Your task to perform on an android device: toggle sleep mode Image 0: 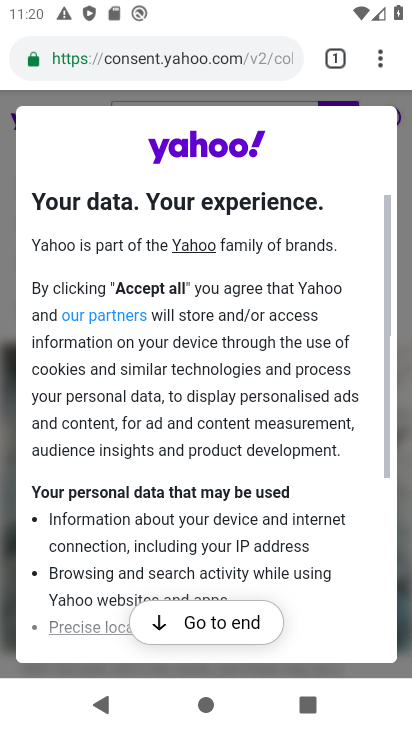
Step 0: press home button
Your task to perform on an android device: toggle sleep mode Image 1: 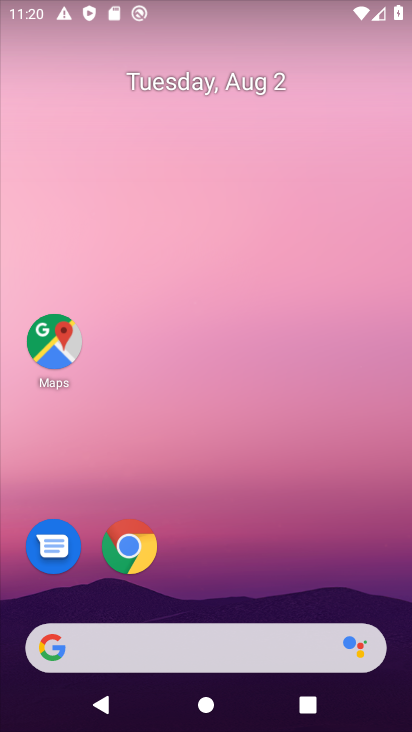
Step 1: drag from (208, 600) to (204, 96)
Your task to perform on an android device: toggle sleep mode Image 2: 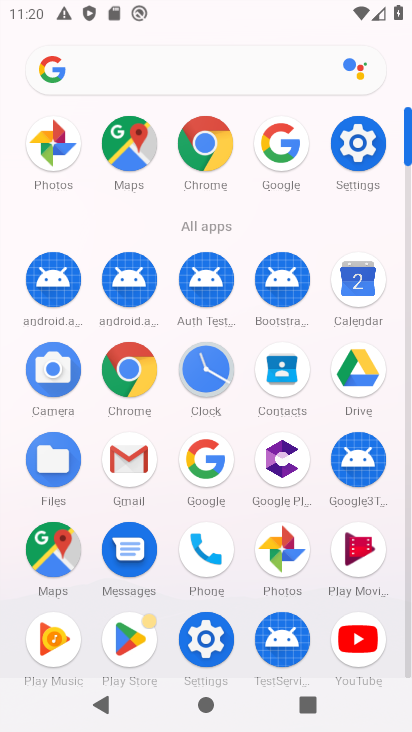
Step 2: click (353, 154)
Your task to perform on an android device: toggle sleep mode Image 3: 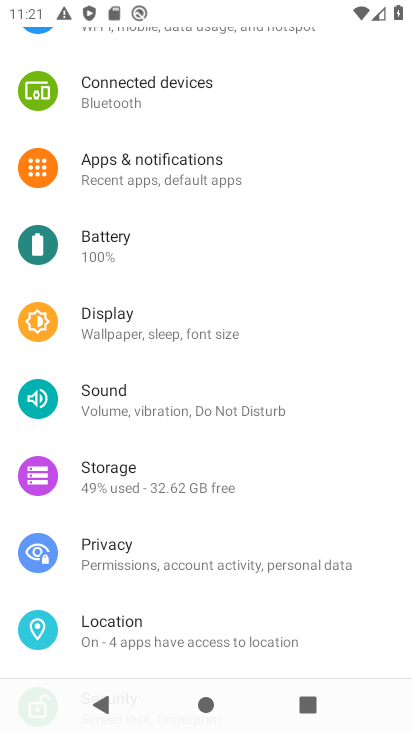
Step 3: drag from (166, 213) to (191, 724)
Your task to perform on an android device: toggle sleep mode Image 4: 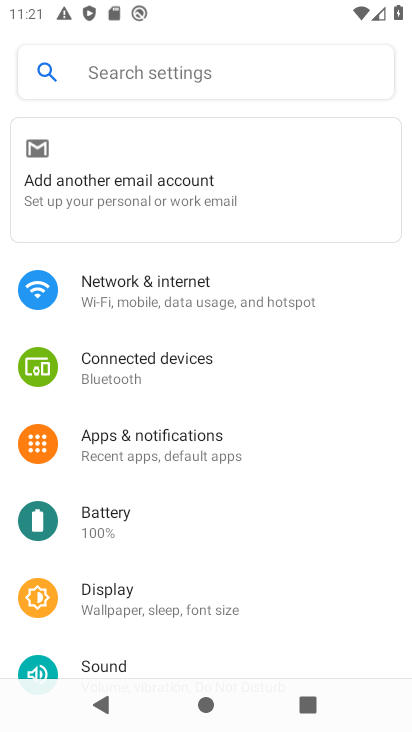
Step 4: click (156, 599)
Your task to perform on an android device: toggle sleep mode Image 5: 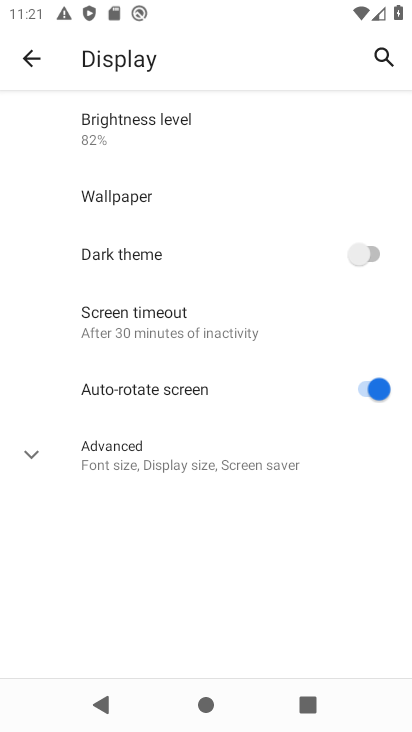
Step 5: click (206, 335)
Your task to perform on an android device: toggle sleep mode Image 6: 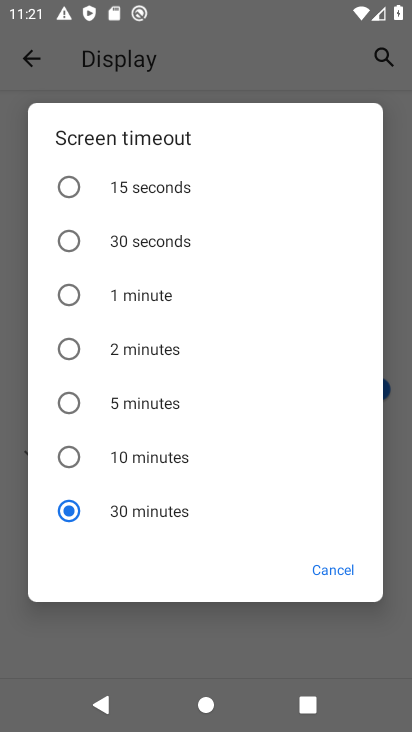
Step 6: click (117, 258)
Your task to perform on an android device: toggle sleep mode Image 7: 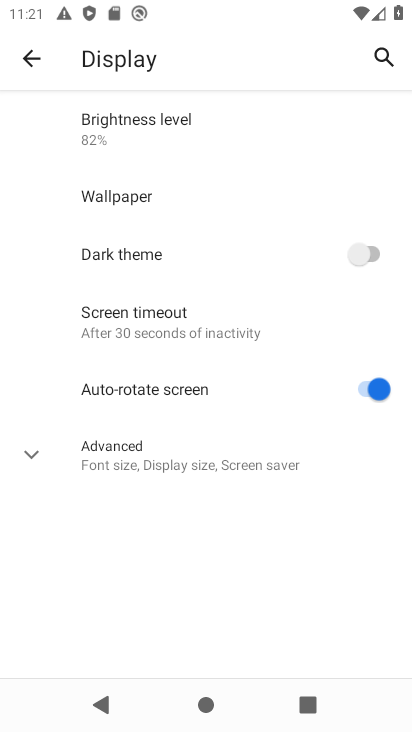
Step 7: task complete